Your task to perform on an android device: Open Yahoo.com Image 0: 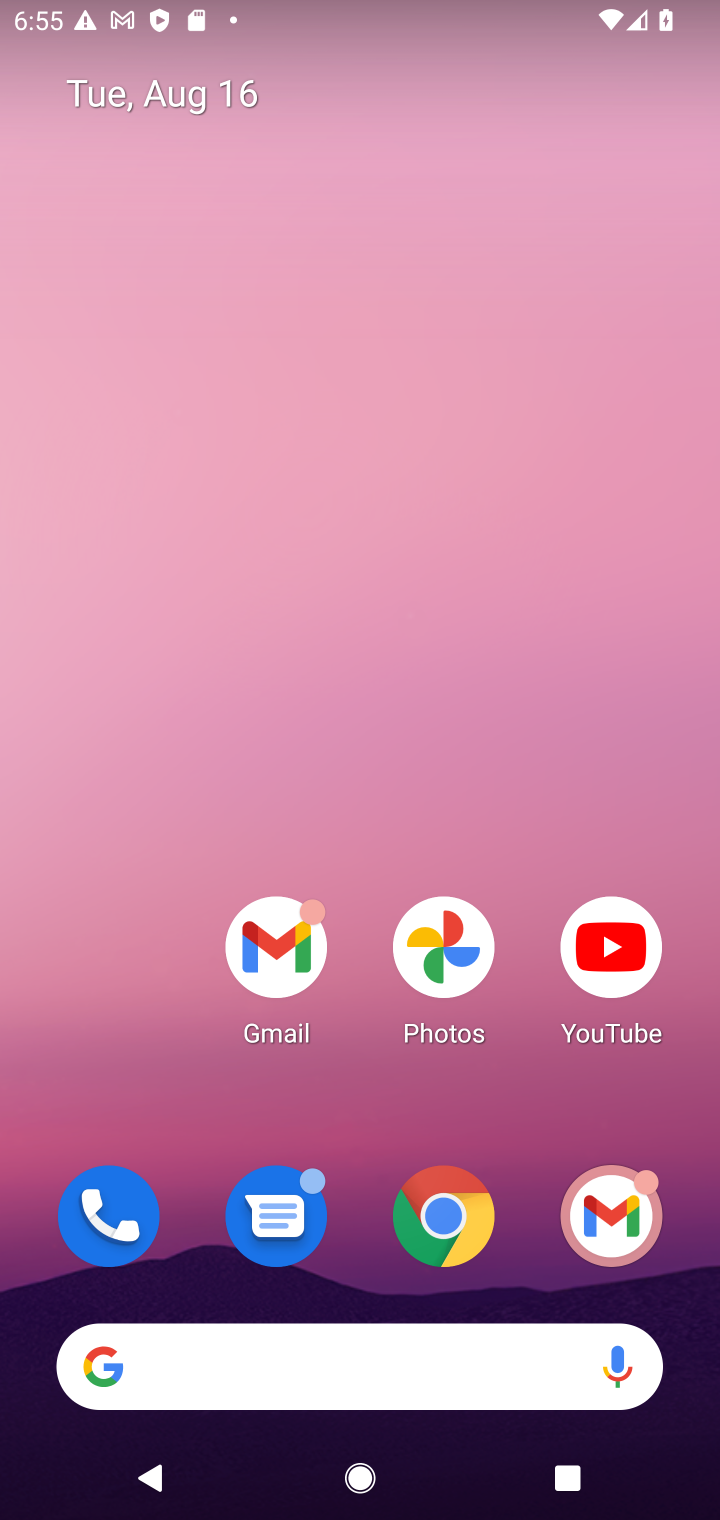
Step 0: press home button
Your task to perform on an android device: Open Yahoo.com Image 1: 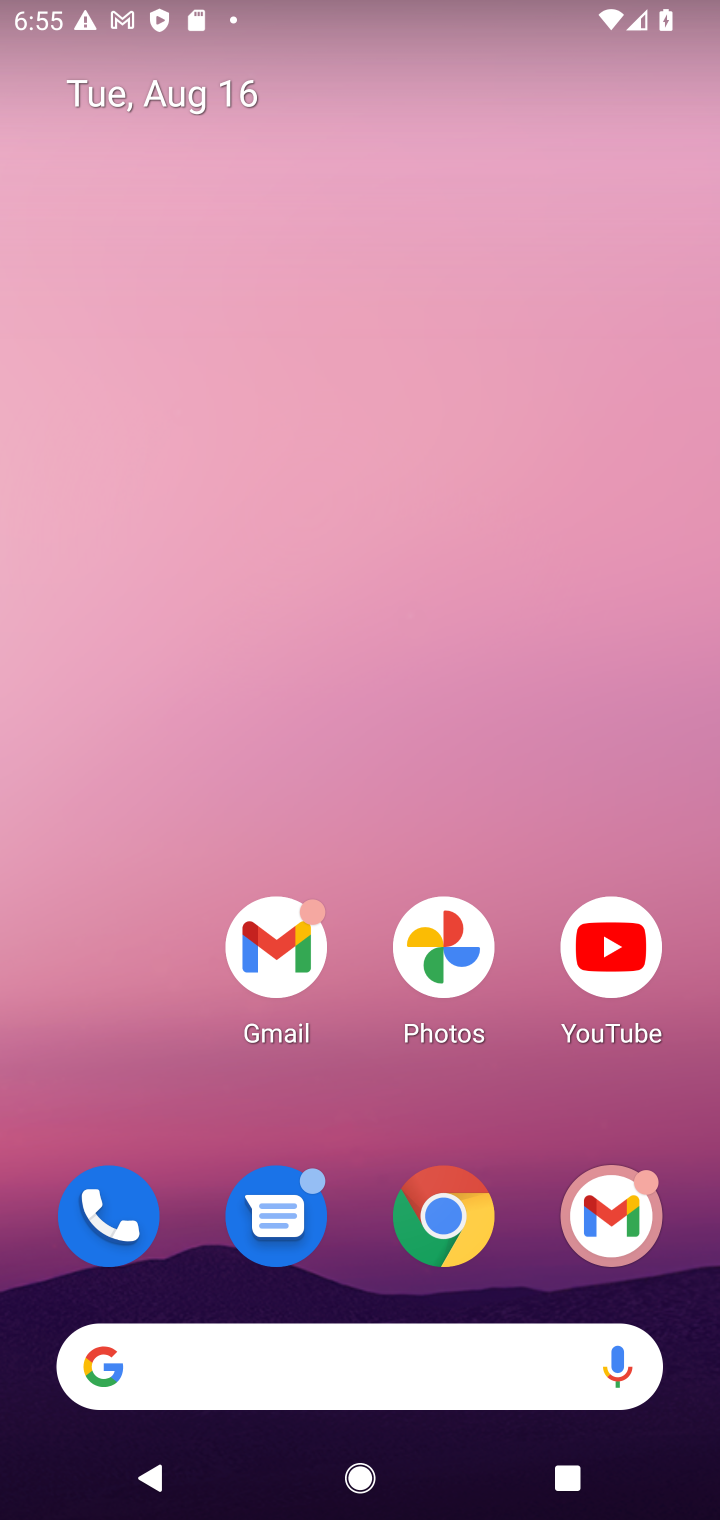
Step 1: drag from (125, 986) to (141, 145)
Your task to perform on an android device: Open Yahoo.com Image 2: 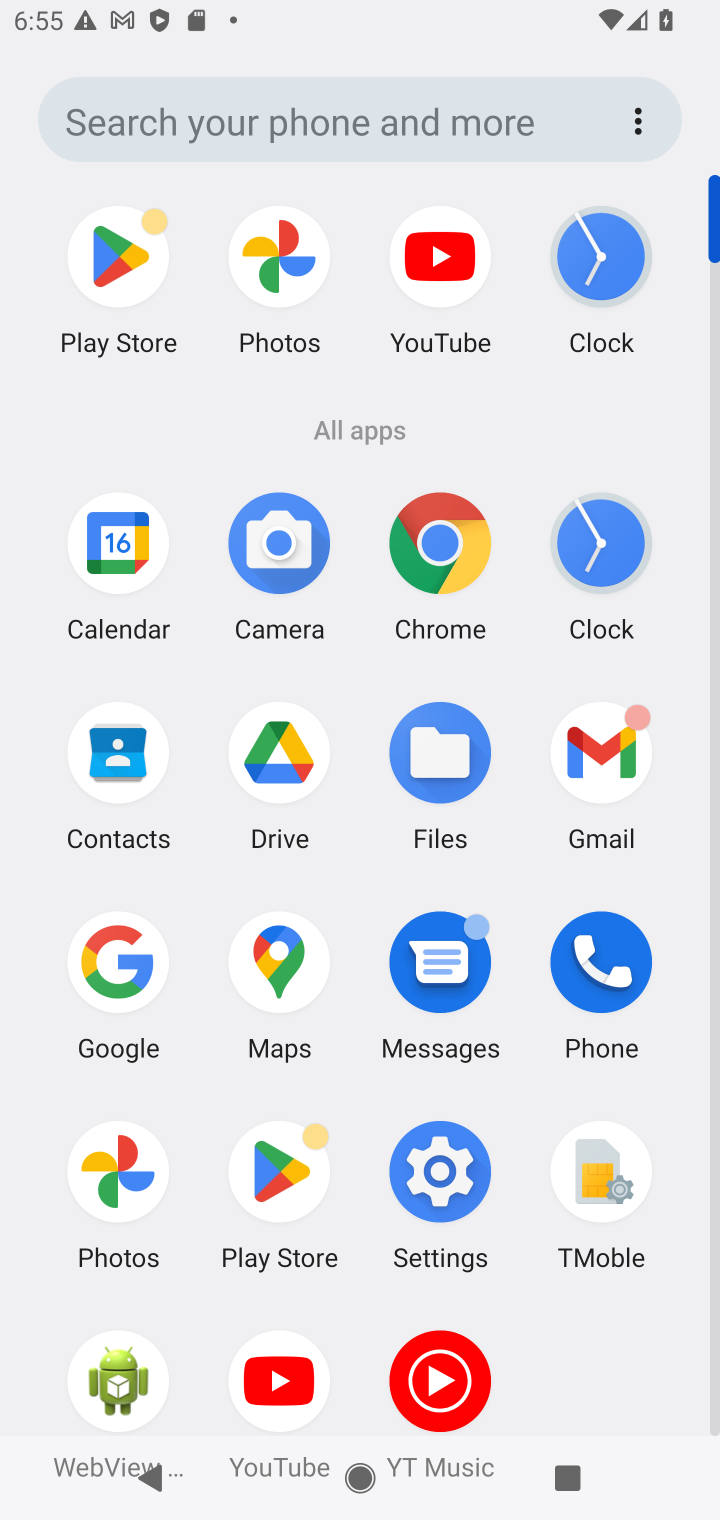
Step 2: click (443, 542)
Your task to perform on an android device: Open Yahoo.com Image 3: 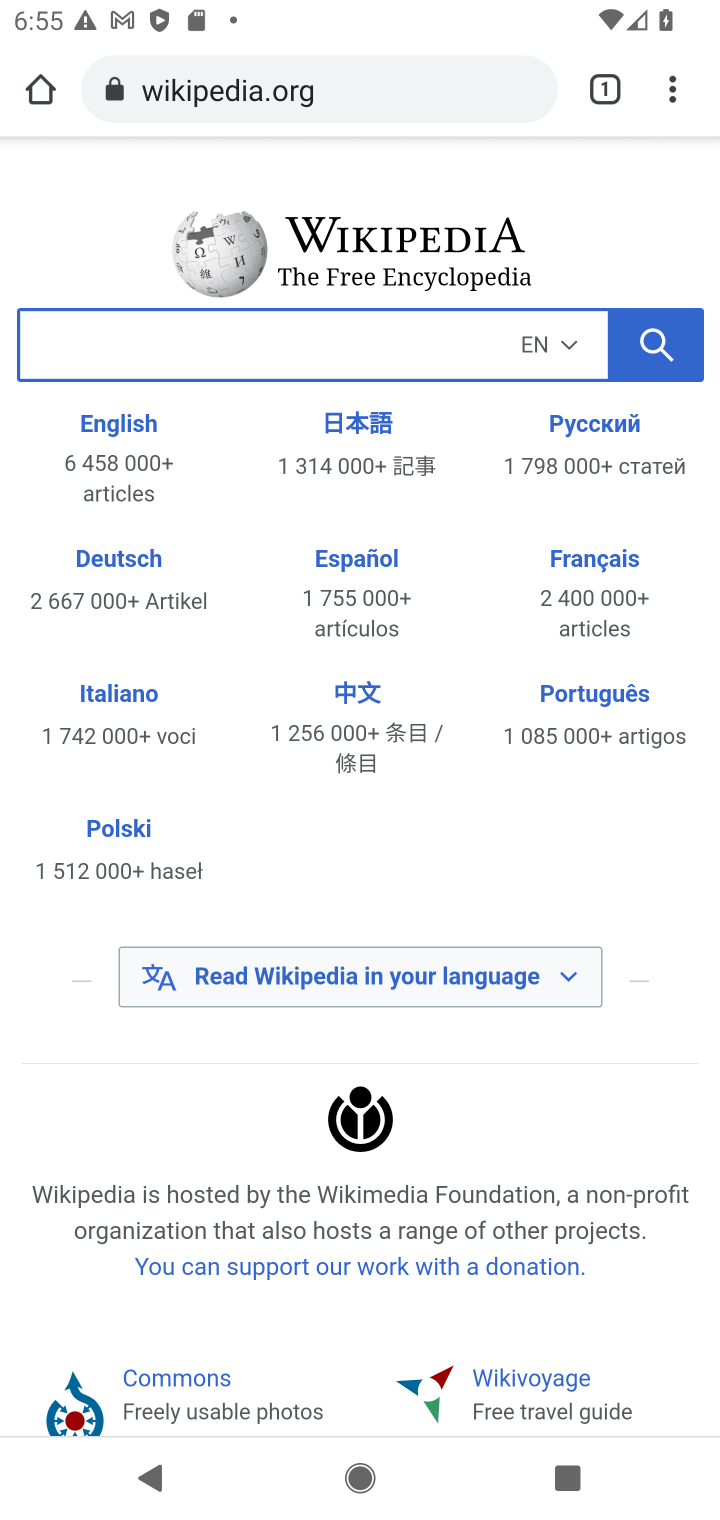
Step 3: click (399, 87)
Your task to perform on an android device: Open Yahoo.com Image 4: 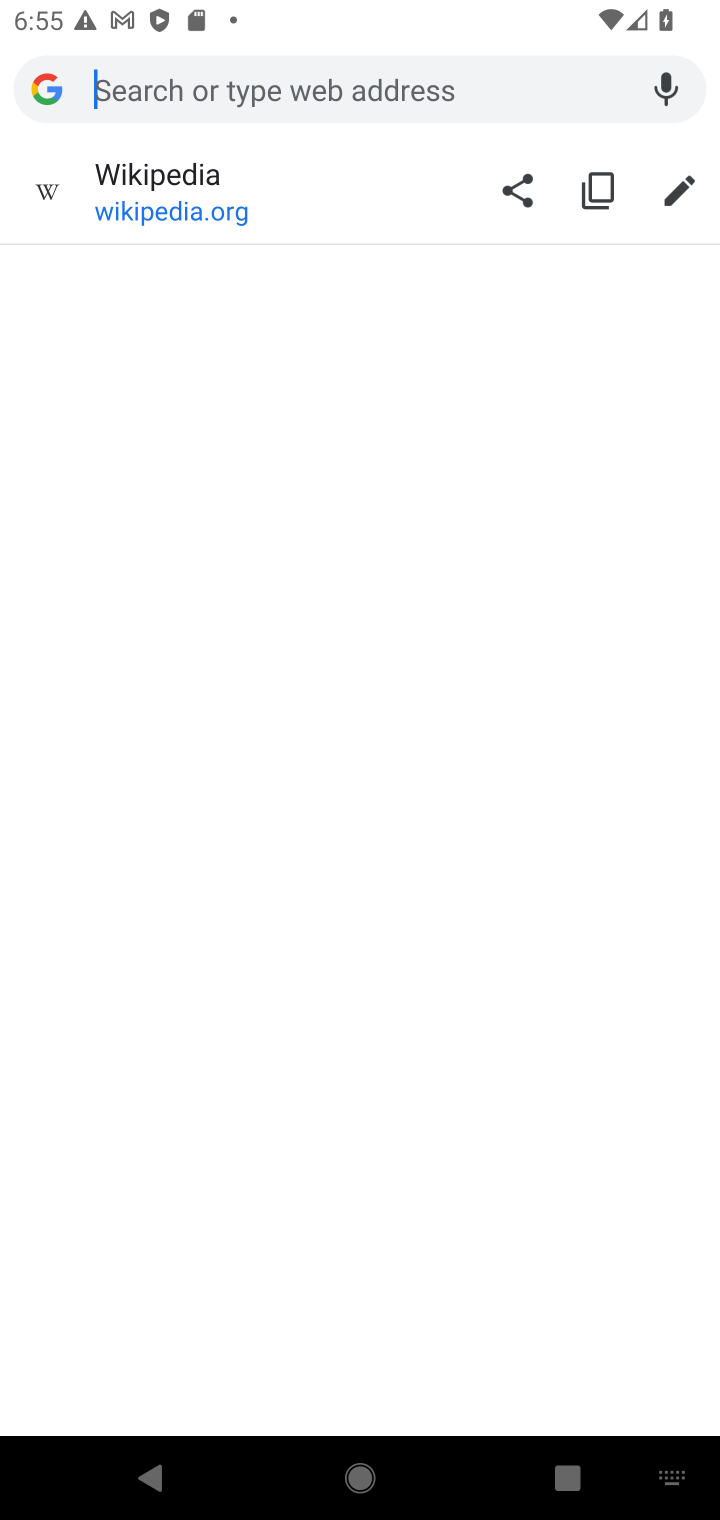
Step 4: type "yahoo.com"
Your task to perform on an android device: Open Yahoo.com Image 5: 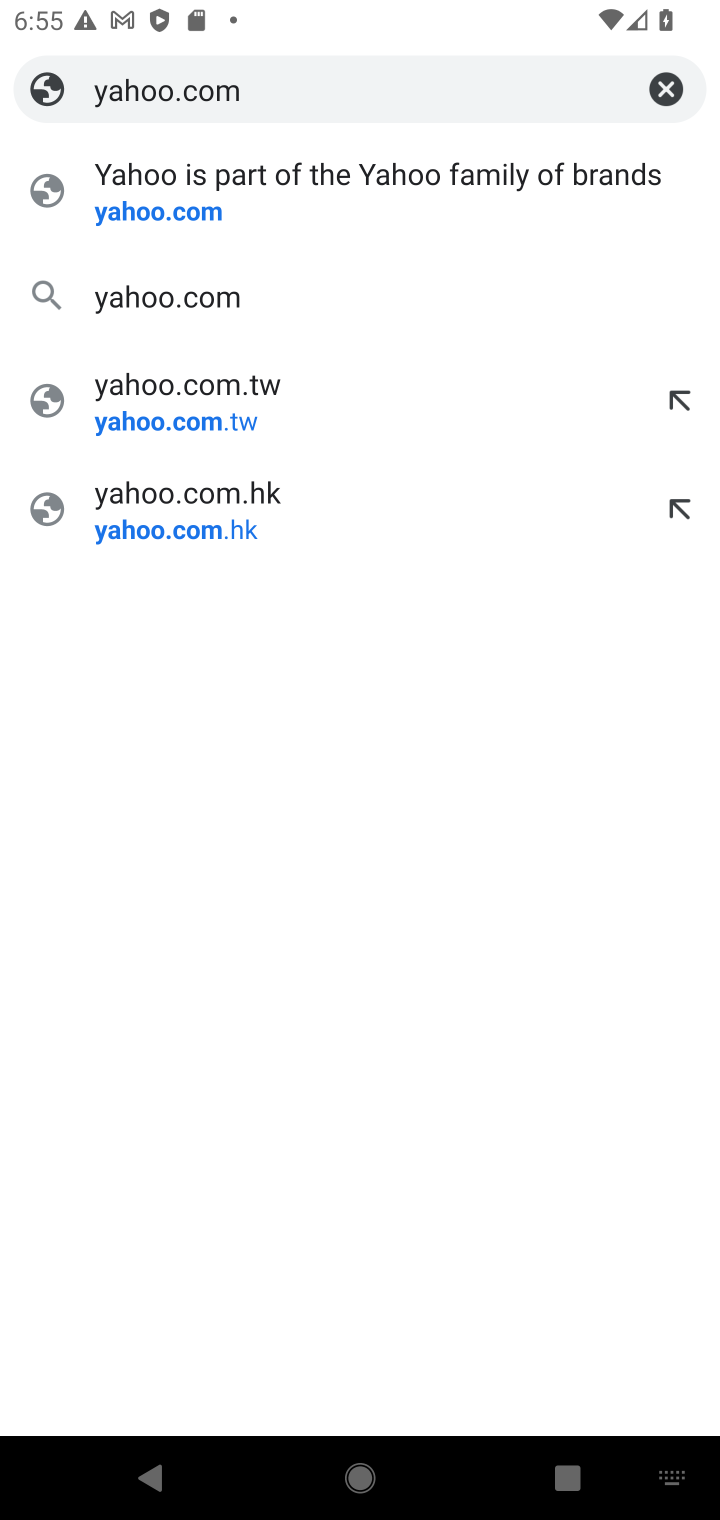
Step 5: click (275, 180)
Your task to perform on an android device: Open Yahoo.com Image 6: 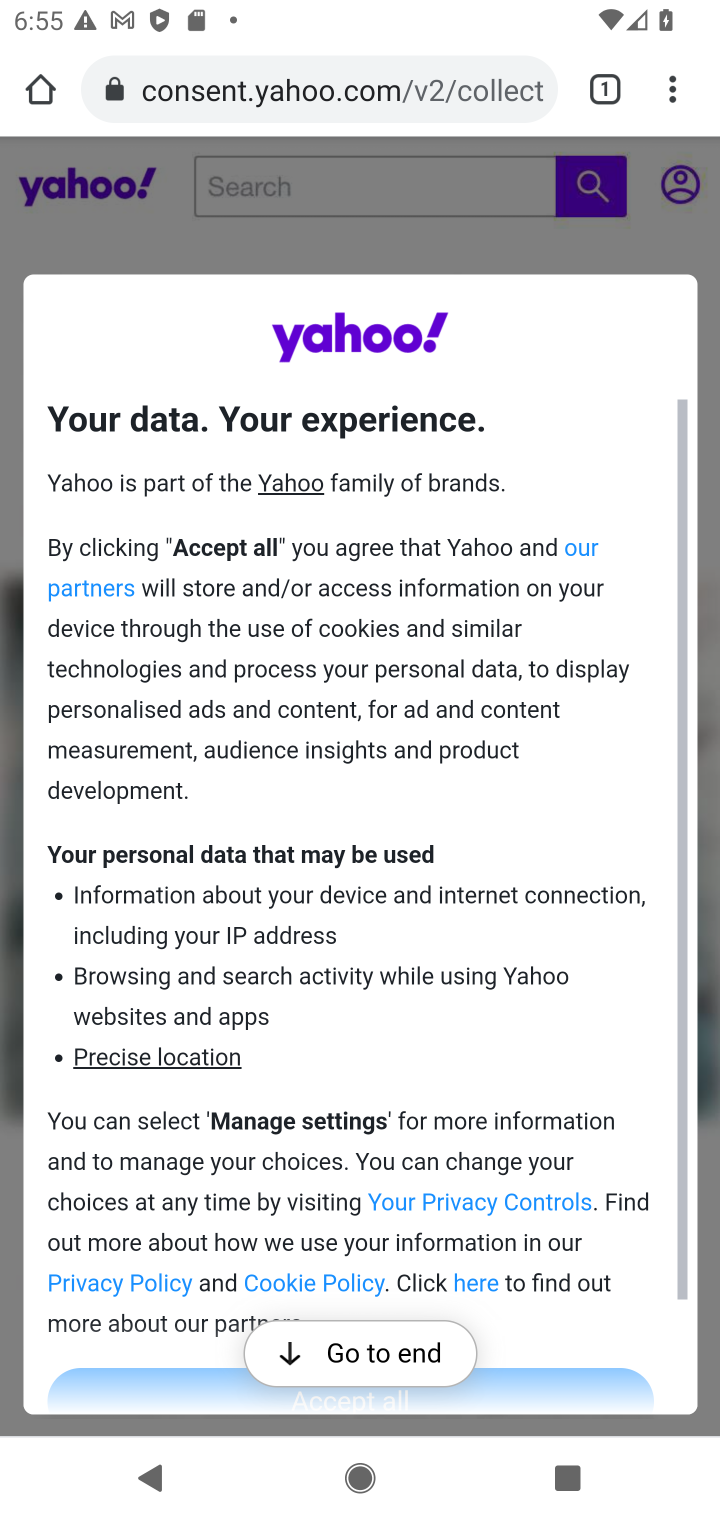
Step 6: task complete